Your task to perform on an android device: When is my next appointment? Image 0: 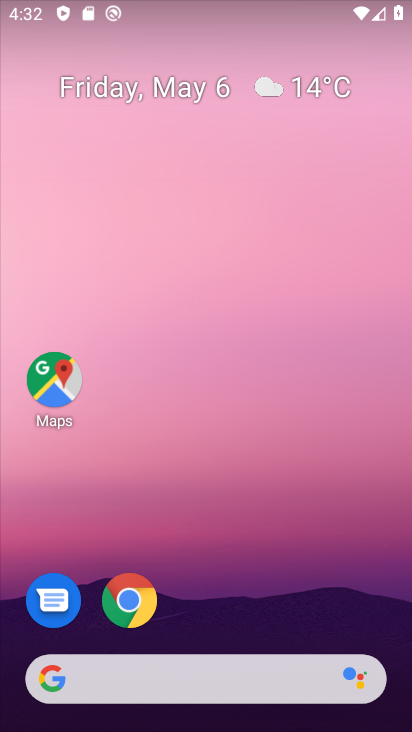
Step 0: drag from (237, 601) to (259, 176)
Your task to perform on an android device: When is my next appointment? Image 1: 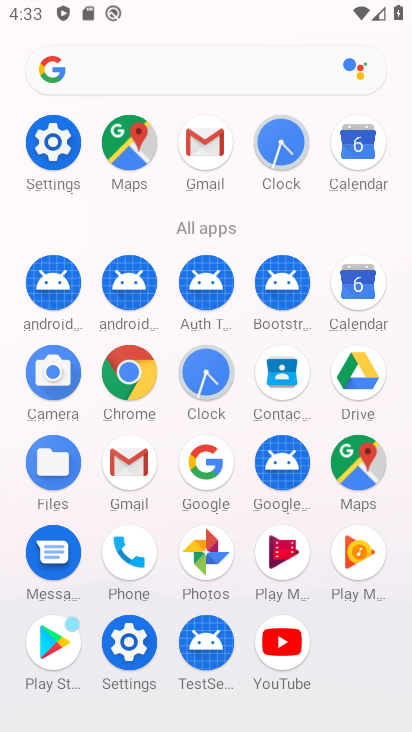
Step 1: click (361, 289)
Your task to perform on an android device: When is my next appointment? Image 2: 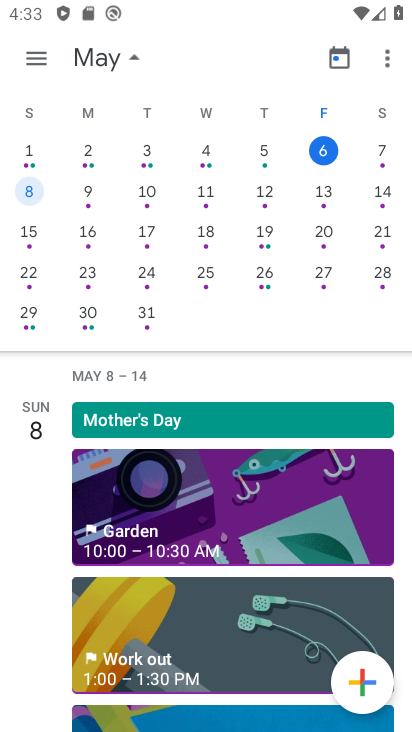
Step 2: click (382, 154)
Your task to perform on an android device: When is my next appointment? Image 3: 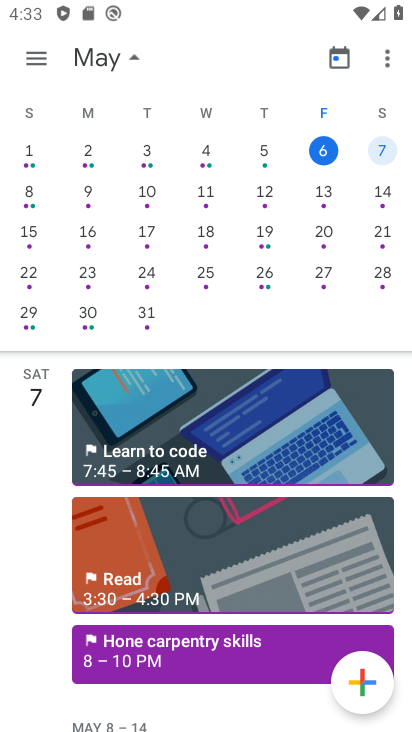
Step 3: click (21, 201)
Your task to perform on an android device: When is my next appointment? Image 4: 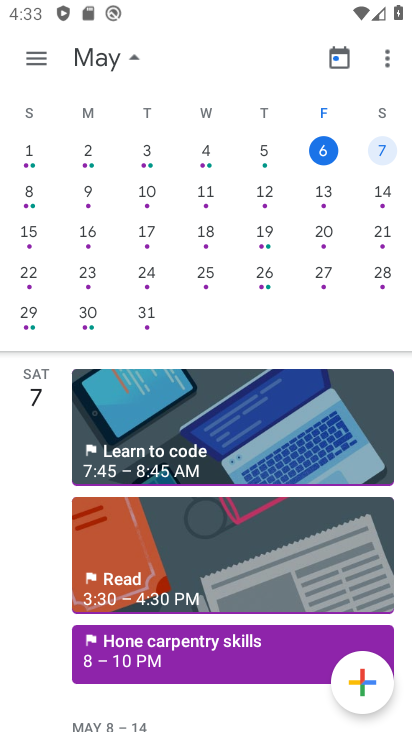
Step 4: click (37, 205)
Your task to perform on an android device: When is my next appointment? Image 5: 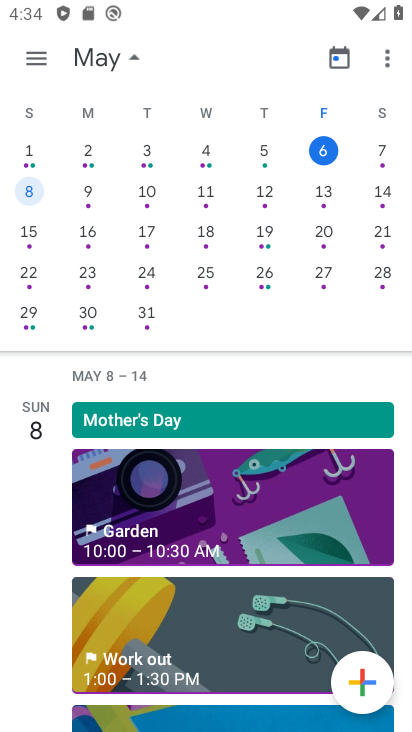
Step 5: click (377, 163)
Your task to perform on an android device: When is my next appointment? Image 6: 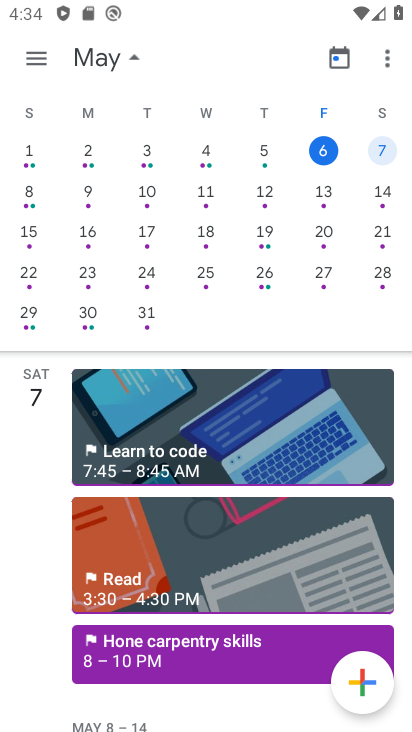
Step 6: click (77, 196)
Your task to perform on an android device: When is my next appointment? Image 7: 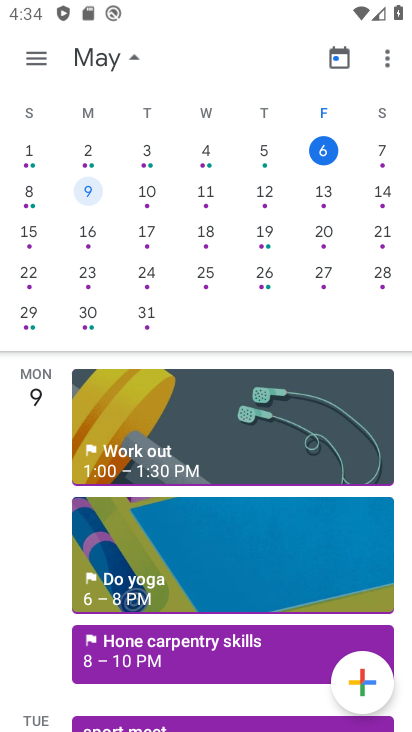
Step 7: task complete